Your task to perform on an android device: Go to internet settings Image 0: 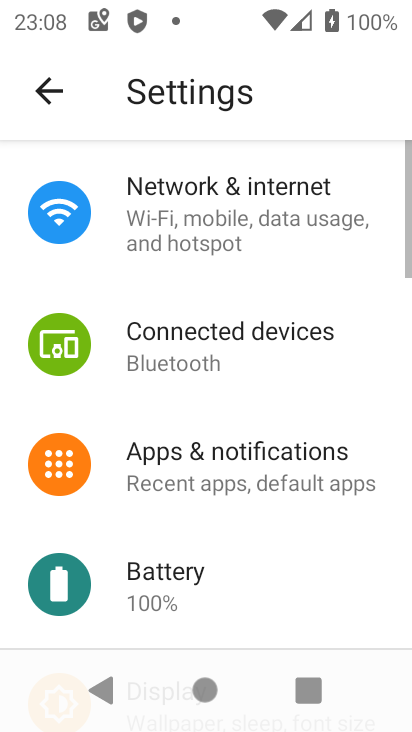
Step 0: press home button
Your task to perform on an android device: Go to internet settings Image 1: 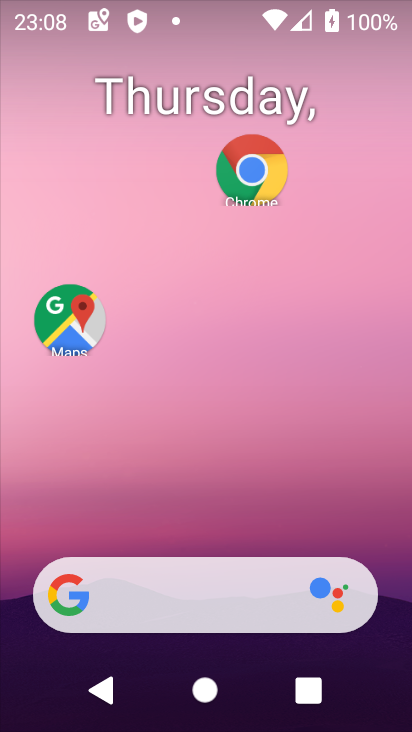
Step 1: drag from (209, 559) to (215, 262)
Your task to perform on an android device: Go to internet settings Image 2: 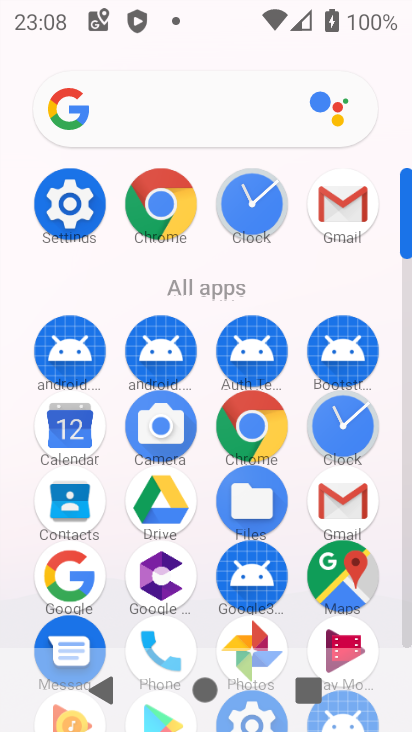
Step 2: click (63, 208)
Your task to perform on an android device: Go to internet settings Image 3: 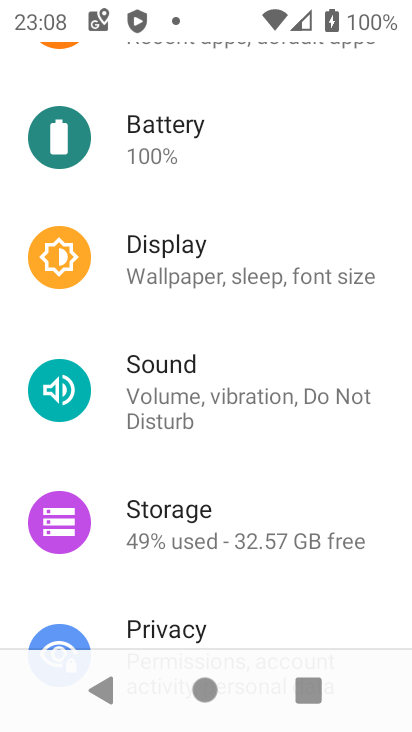
Step 3: drag from (227, 115) to (227, 570)
Your task to perform on an android device: Go to internet settings Image 4: 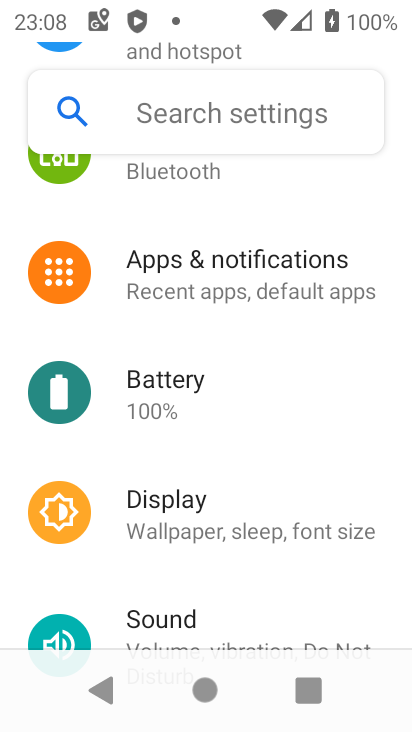
Step 4: drag from (270, 222) to (270, 603)
Your task to perform on an android device: Go to internet settings Image 5: 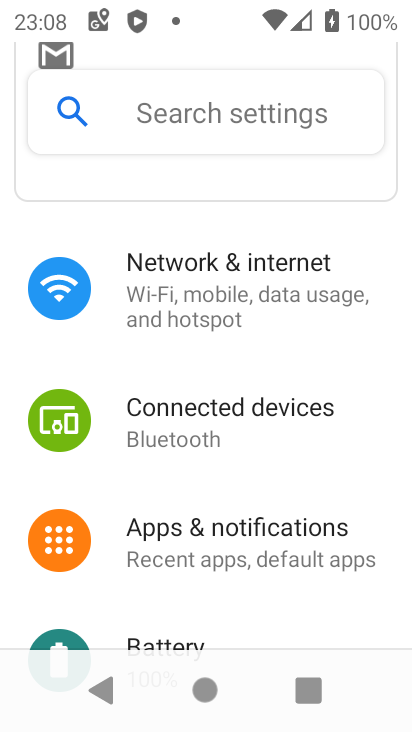
Step 5: click (219, 283)
Your task to perform on an android device: Go to internet settings Image 6: 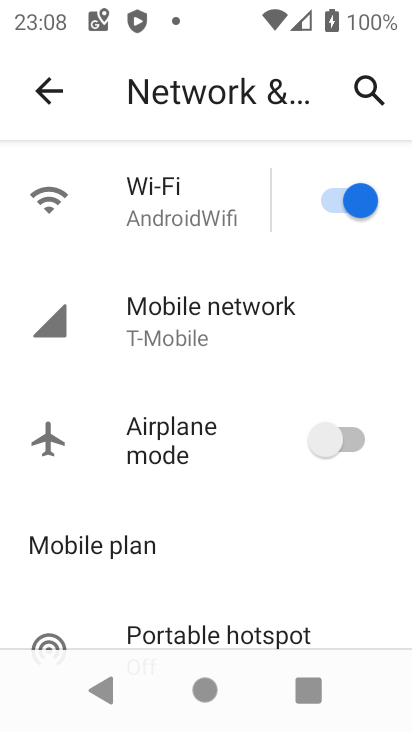
Step 6: drag from (223, 578) to (224, 330)
Your task to perform on an android device: Go to internet settings Image 7: 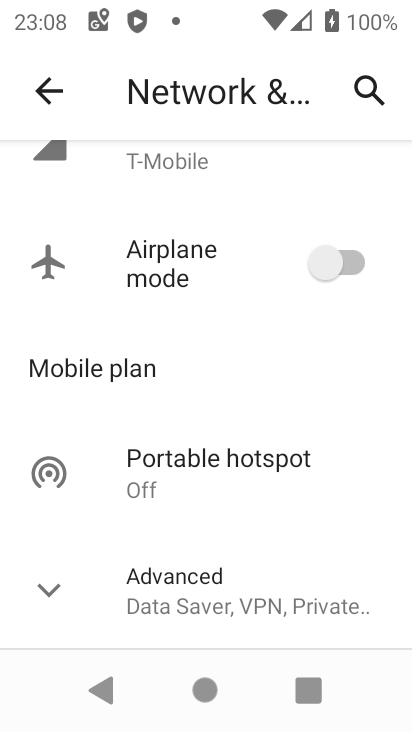
Step 7: click (219, 600)
Your task to perform on an android device: Go to internet settings Image 8: 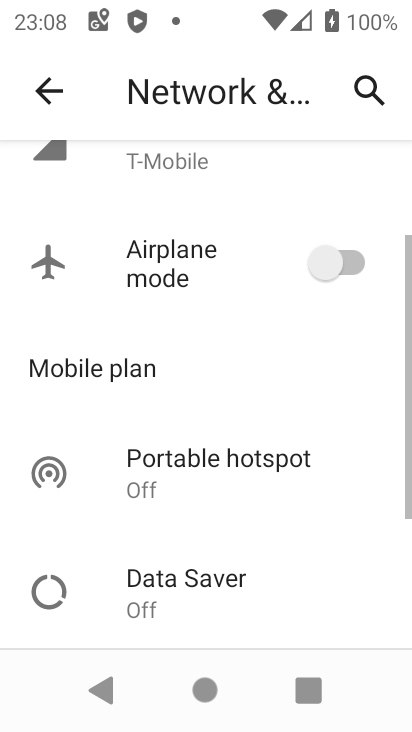
Step 8: task complete